Your task to perform on an android device: Open the calendar app, open the side menu, and click the "Day" option Image 0: 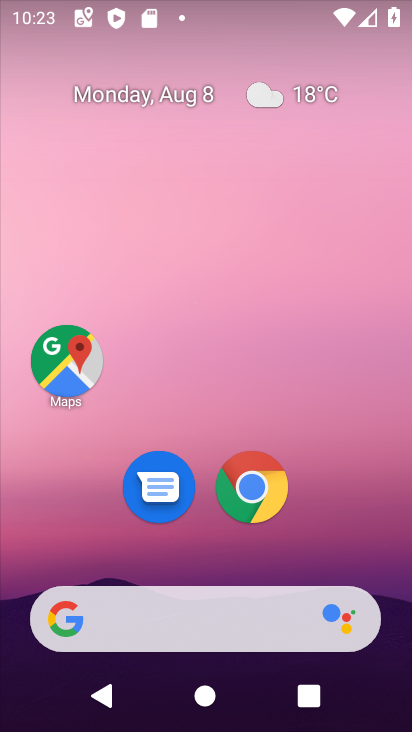
Step 0: drag from (206, 574) to (197, 78)
Your task to perform on an android device: Open the calendar app, open the side menu, and click the "Day" option Image 1: 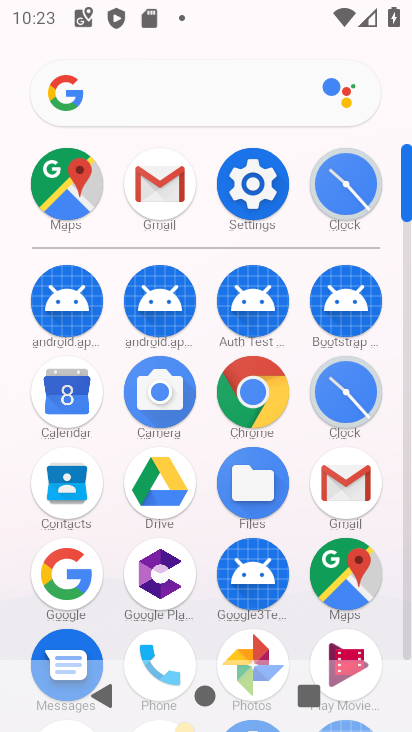
Step 1: click (66, 389)
Your task to perform on an android device: Open the calendar app, open the side menu, and click the "Day" option Image 2: 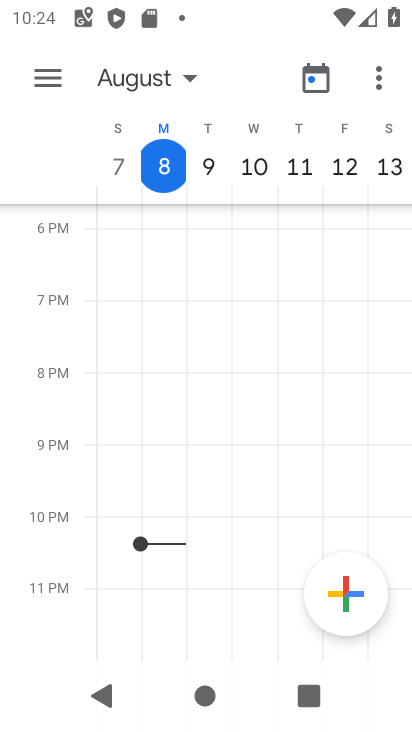
Step 2: click (49, 85)
Your task to perform on an android device: Open the calendar app, open the side menu, and click the "Day" option Image 3: 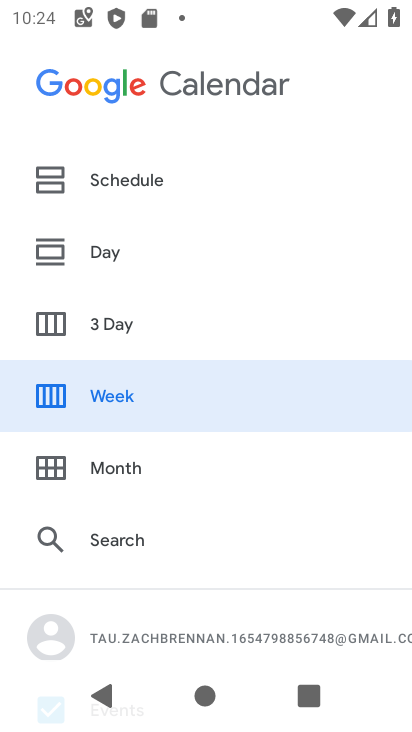
Step 3: click (114, 250)
Your task to perform on an android device: Open the calendar app, open the side menu, and click the "Day" option Image 4: 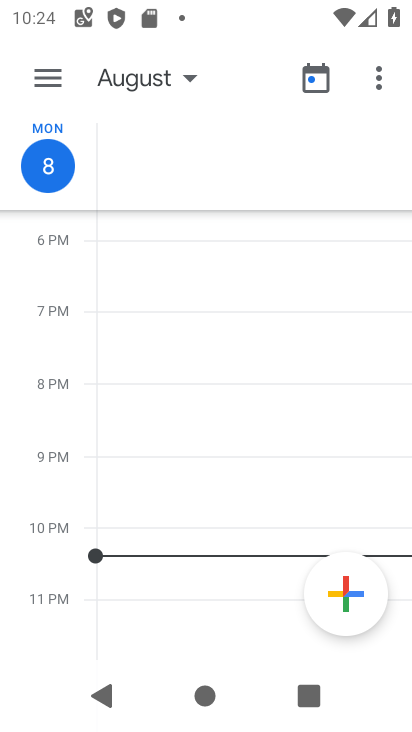
Step 4: task complete